Your task to perform on an android device: toggle improve location accuracy Image 0: 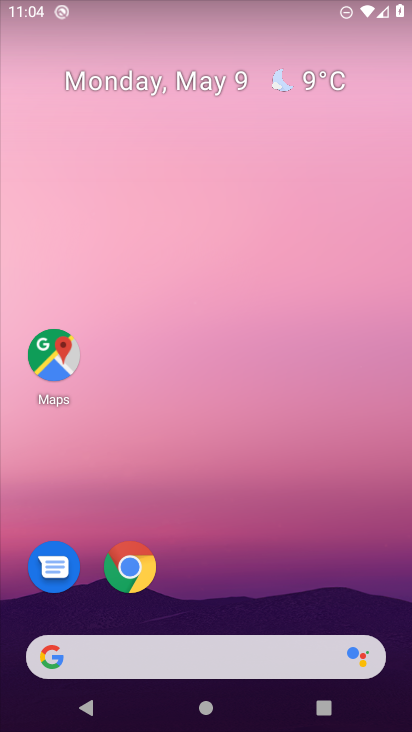
Step 0: drag from (205, 617) to (265, 11)
Your task to perform on an android device: toggle improve location accuracy Image 1: 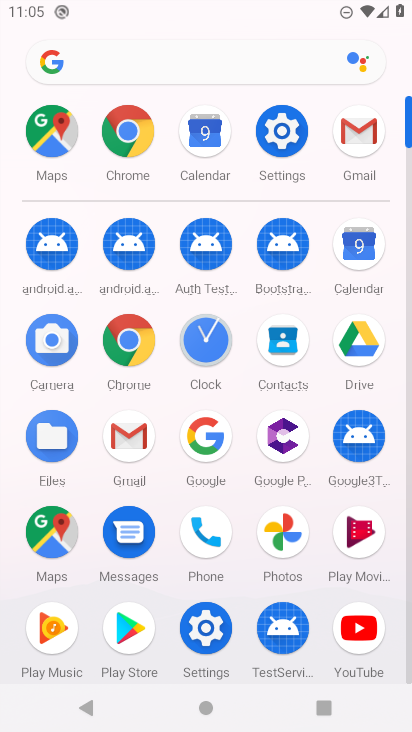
Step 1: click (283, 132)
Your task to perform on an android device: toggle improve location accuracy Image 2: 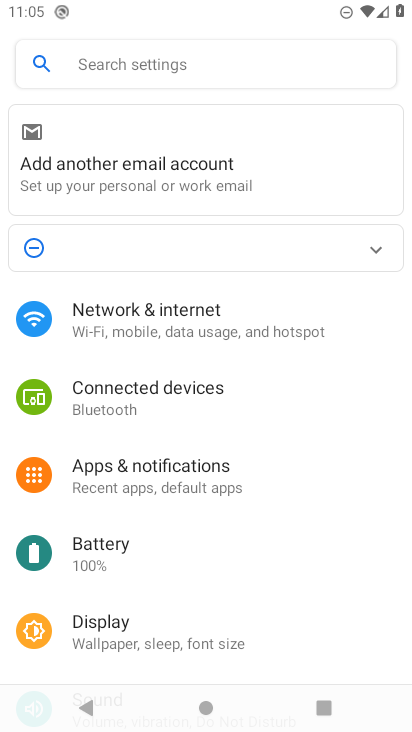
Step 2: drag from (209, 599) to (207, 113)
Your task to perform on an android device: toggle improve location accuracy Image 3: 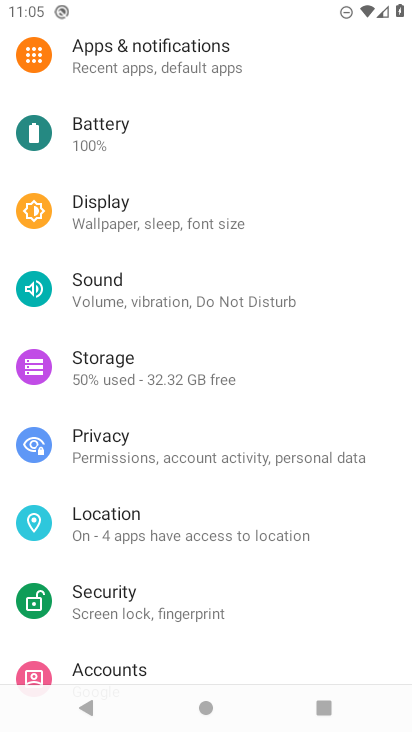
Step 3: click (148, 514)
Your task to perform on an android device: toggle improve location accuracy Image 4: 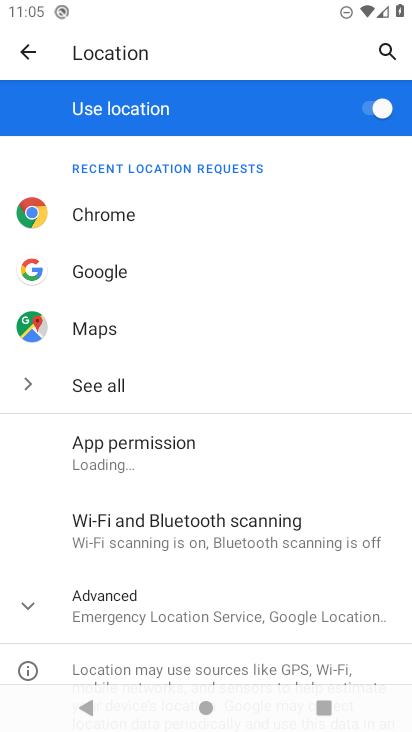
Step 4: click (22, 604)
Your task to perform on an android device: toggle improve location accuracy Image 5: 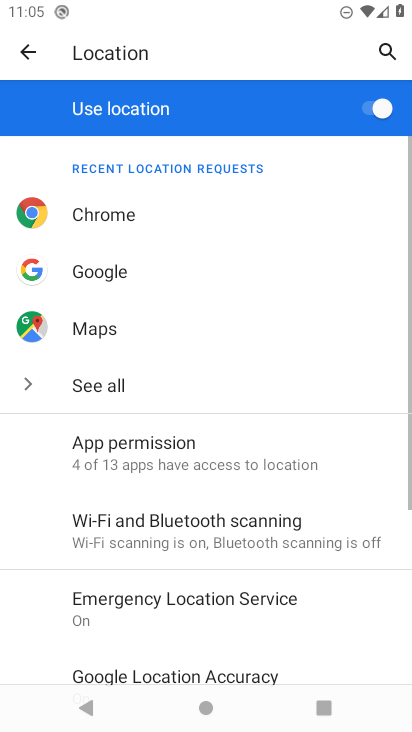
Step 5: drag from (147, 607) to (179, 302)
Your task to perform on an android device: toggle improve location accuracy Image 6: 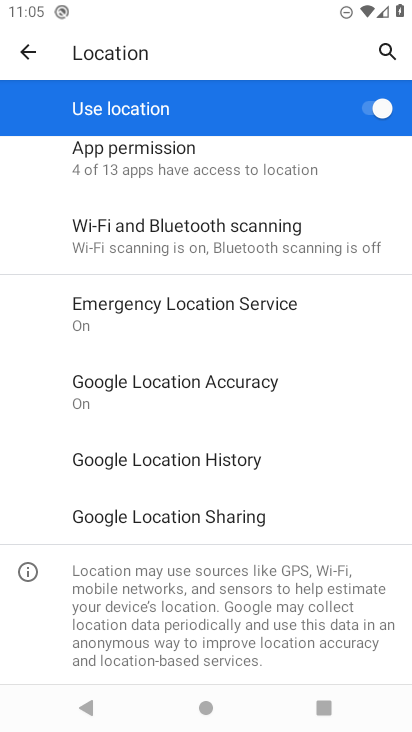
Step 6: click (209, 392)
Your task to perform on an android device: toggle improve location accuracy Image 7: 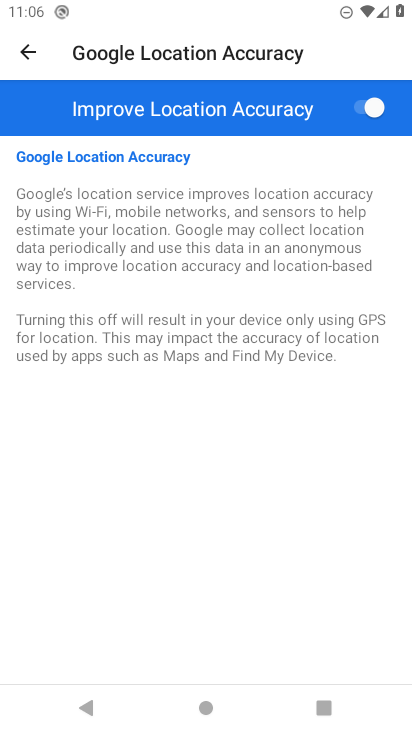
Step 7: task complete